Your task to perform on an android device: set the timer Image 0: 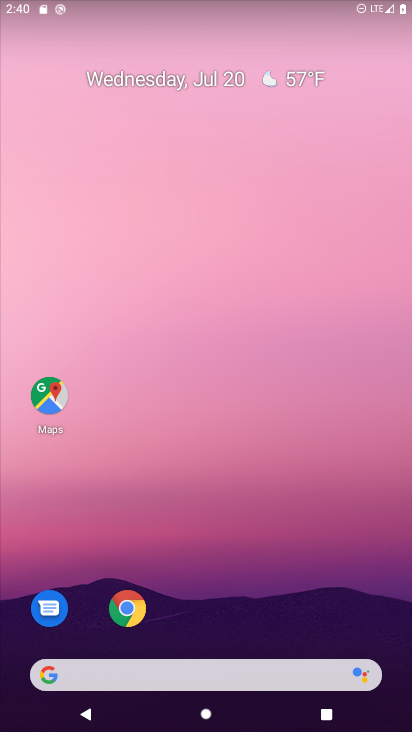
Step 0: drag from (244, 714) to (244, 255)
Your task to perform on an android device: set the timer Image 1: 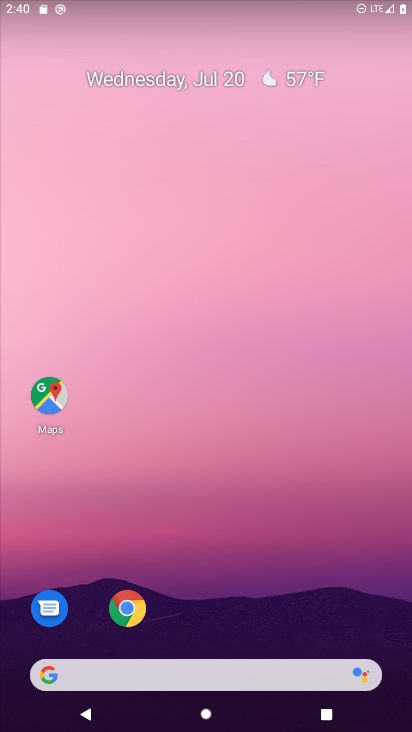
Step 1: drag from (236, 722) to (196, 156)
Your task to perform on an android device: set the timer Image 2: 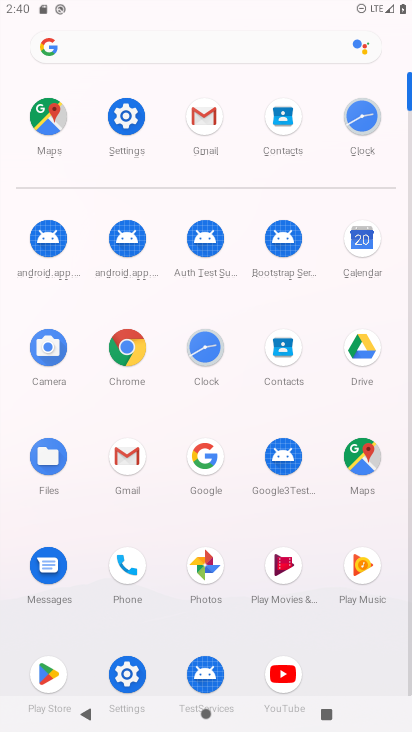
Step 2: click (202, 337)
Your task to perform on an android device: set the timer Image 3: 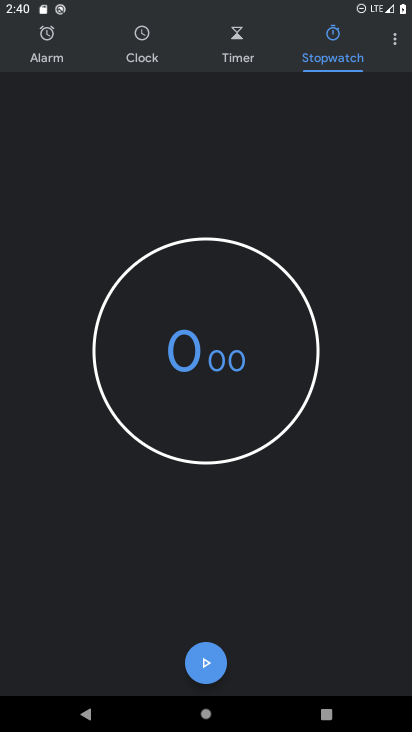
Step 3: click (240, 53)
Your task to perform on an android device: set the timer Image 4: 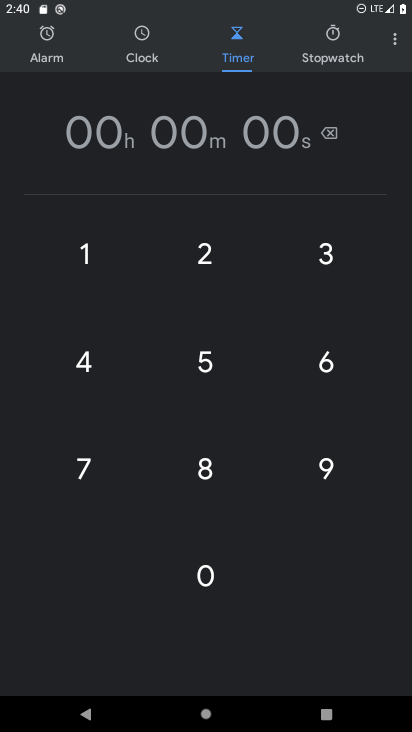
Step 4: click (211, 474)
Your task to perform on an android device: set the timer Image 5: 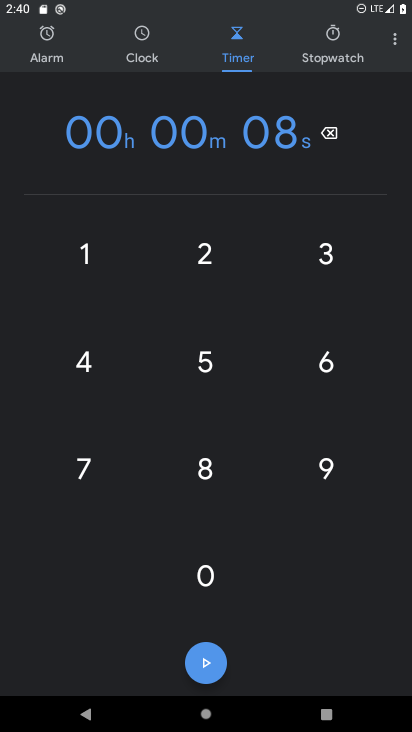
Step 5: click (195, 352)
Your task to perform on an android device: set the timer Image 6: 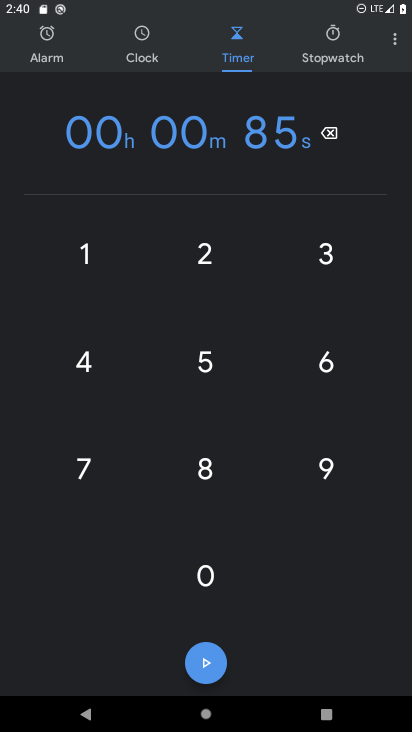
Step 6: click (201, 246)
Your task to perform on an android device: set the timer Image 7: 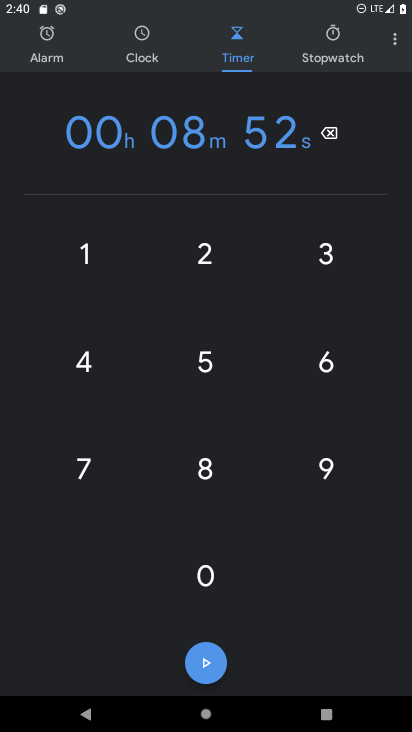
Step 7: click (206, 657)
Your task to perform on an android device: set the timer Image 8: 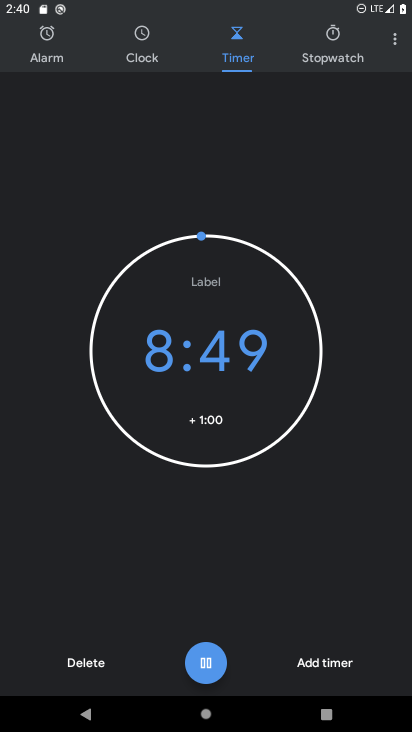
Step 8: task complete